Your task to perform on an android device: move an email to a new category in the gmail app Image 0: 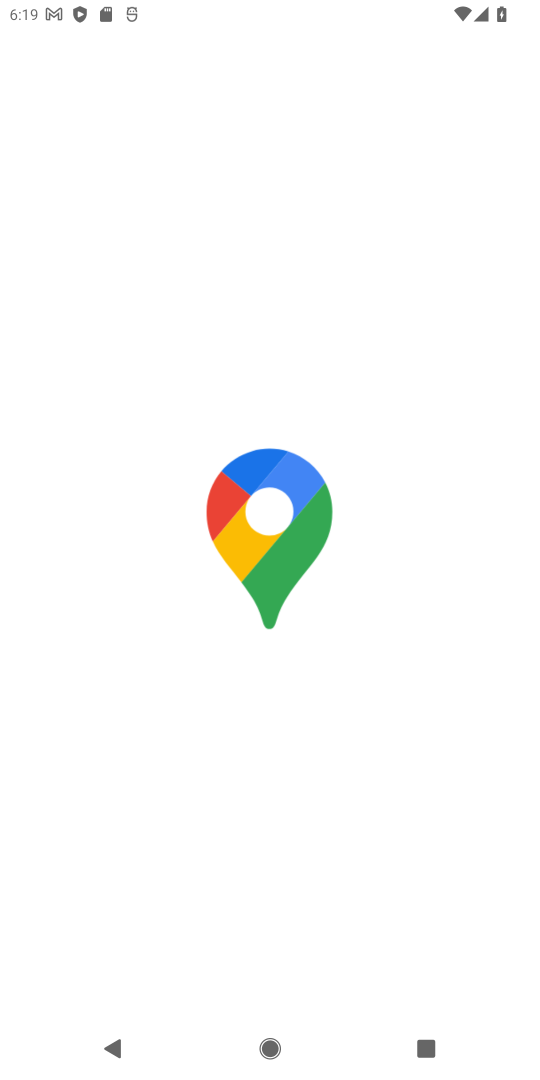
Step 0: press back button
Your task to perform on an android device: move an email to a new category in the gmail app Image 1: 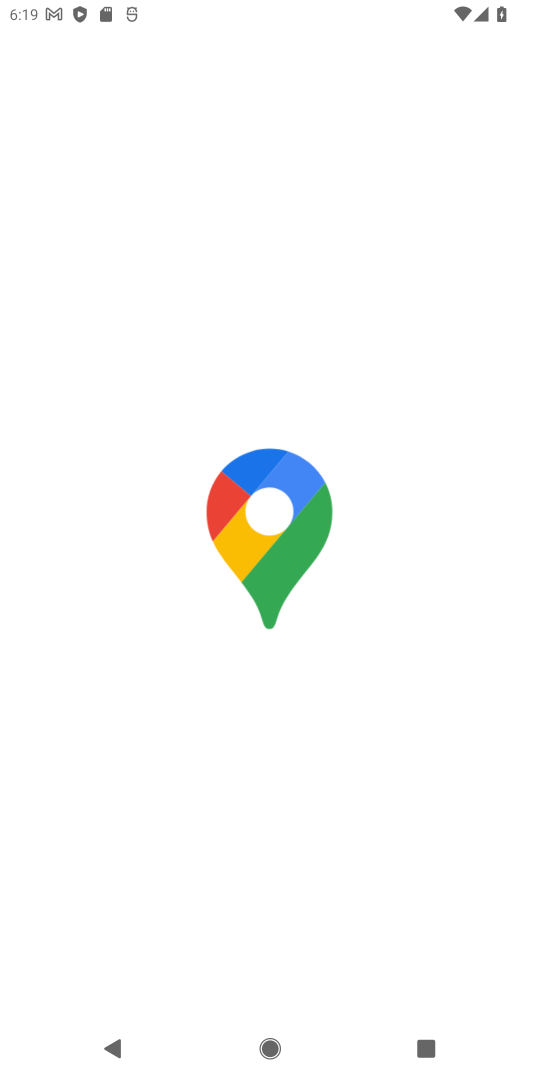
Step 1: press back button
Your task to perform on an android device: move an email to a new category in the gmail app Image 2: 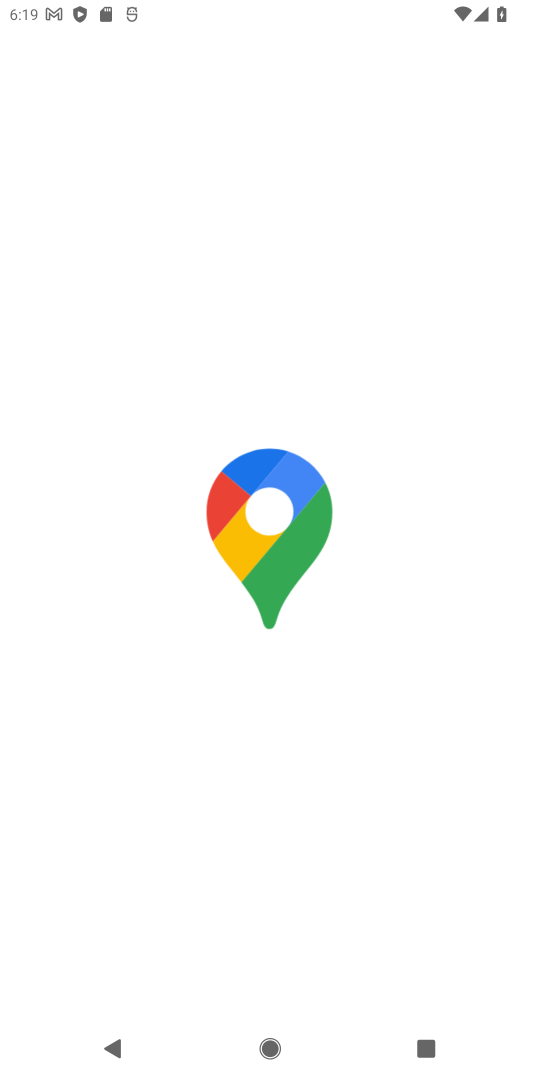
Step 2: press home button
Your task to perform on an android device: move an email to a new category in the gmail app Image 3: 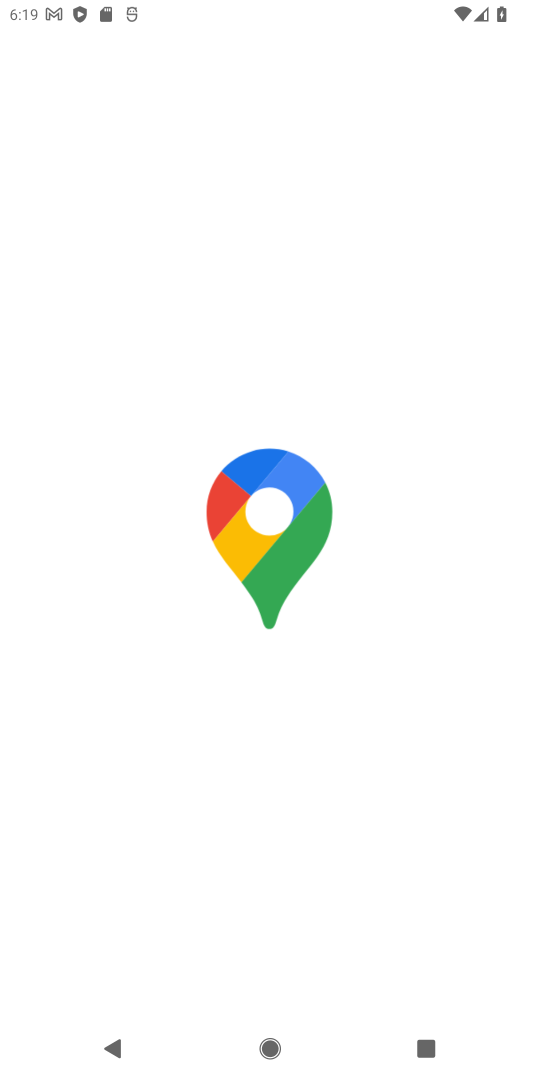
Step 3: press home button
Your task to perform on an android device: move an email to a new category in the gmail app Image 4: 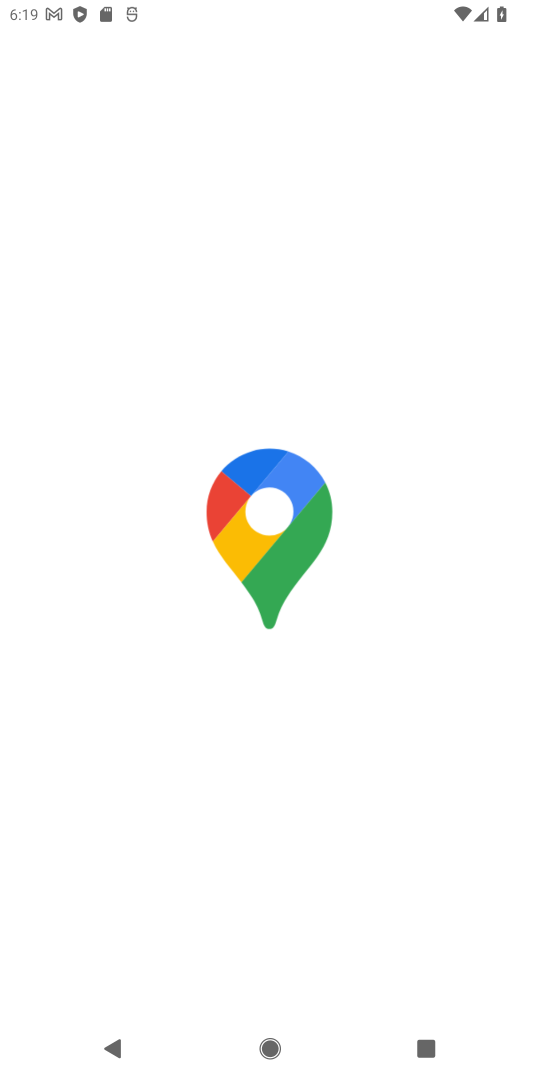
Step 4: press home button
Your task to perform on an android device: move an email to a new category in the gmail app Image 5: 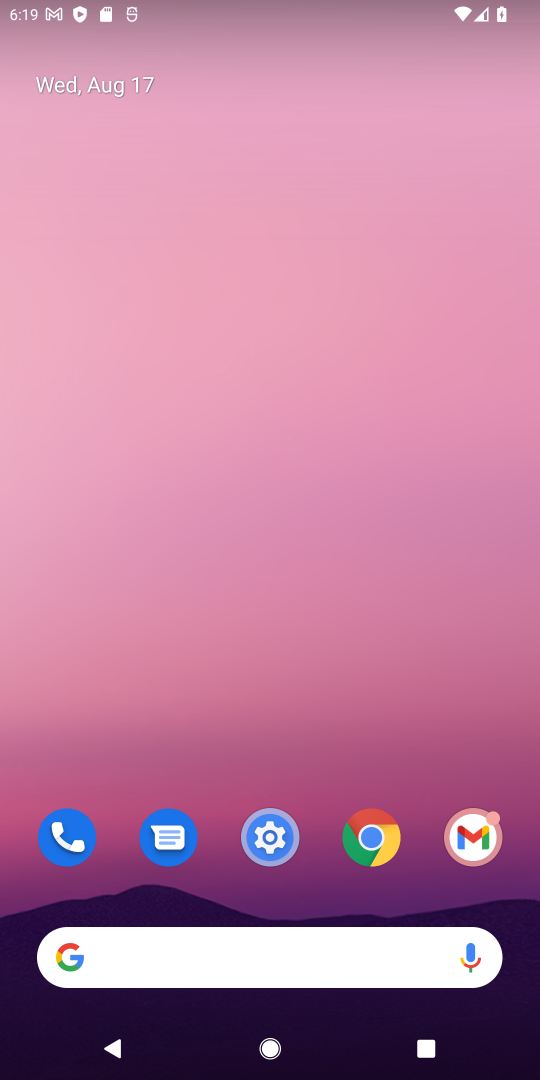
Step 5: click (467, 835)
Your task to perform on an android device: move an email to a new category in the gmail app Image 6: 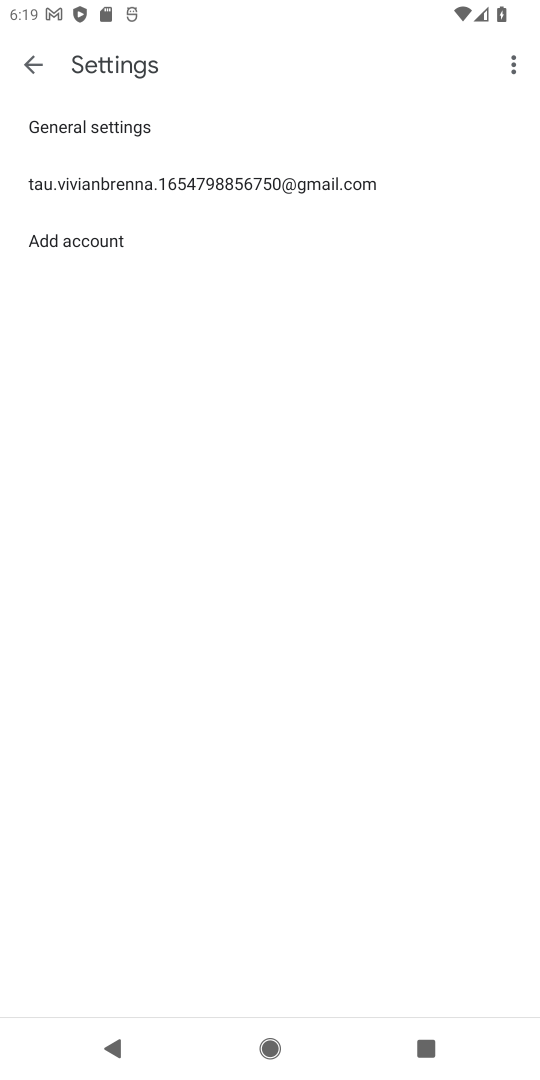
Step 6: press back button
Your task to perform on an android device: move an email to a new category in the gmail app Image 7: 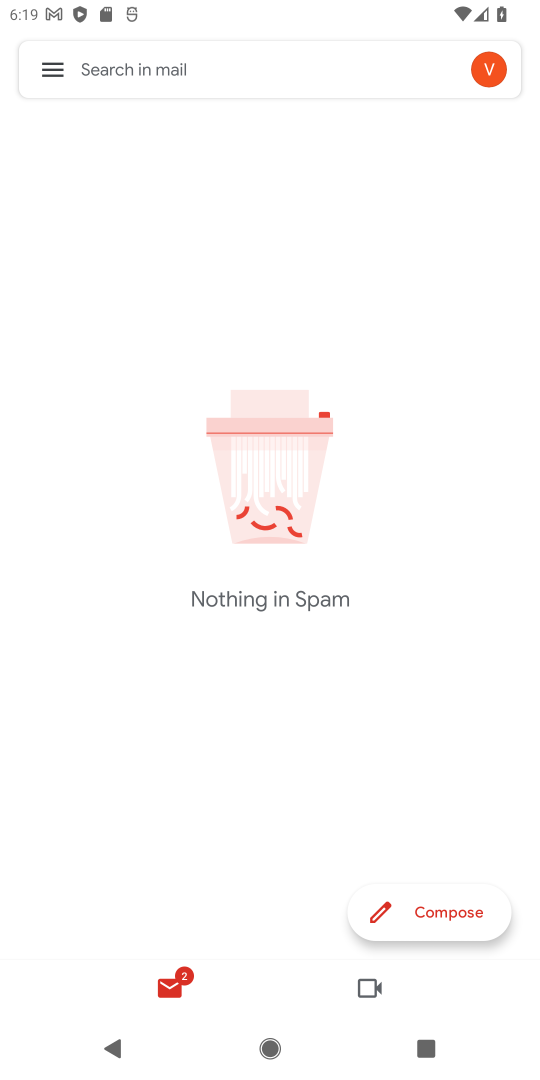
Step 7: click (46, 58)
Your task to perform on an android device: move an email to a new category in the gmail app Image 8: 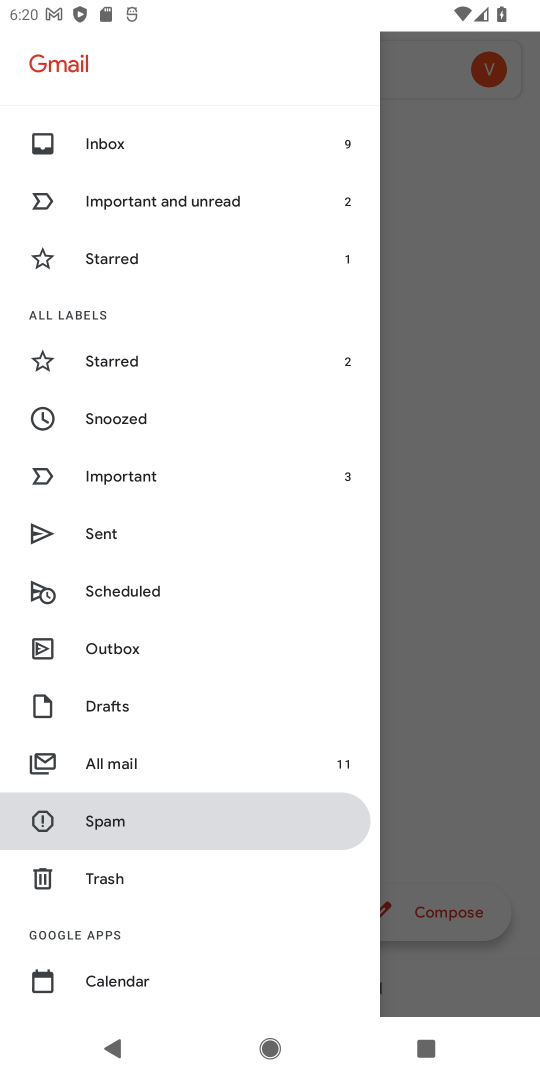
Step 8: click (155, 760)
Your task to perform on an android device: move an email to a new category in the gmail app Image 9: 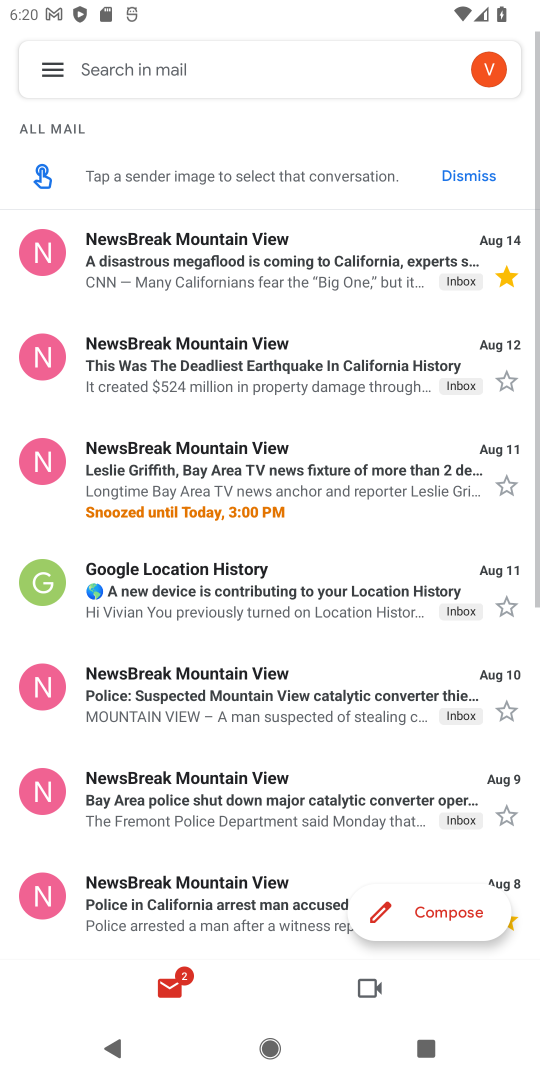
Step 9: click (180, 704)
Your task to perform on an android device: move an email to a new category in the gmail app Image 10: 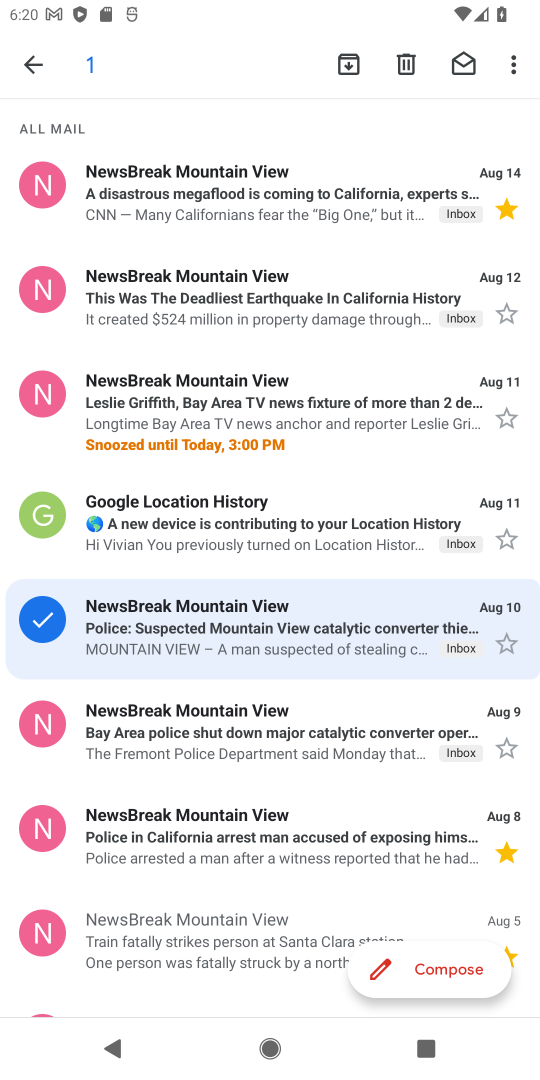
Step 10: click (511, 63)
Your task to perform on an android device: move an email to a new category in the gmail app Image 11: 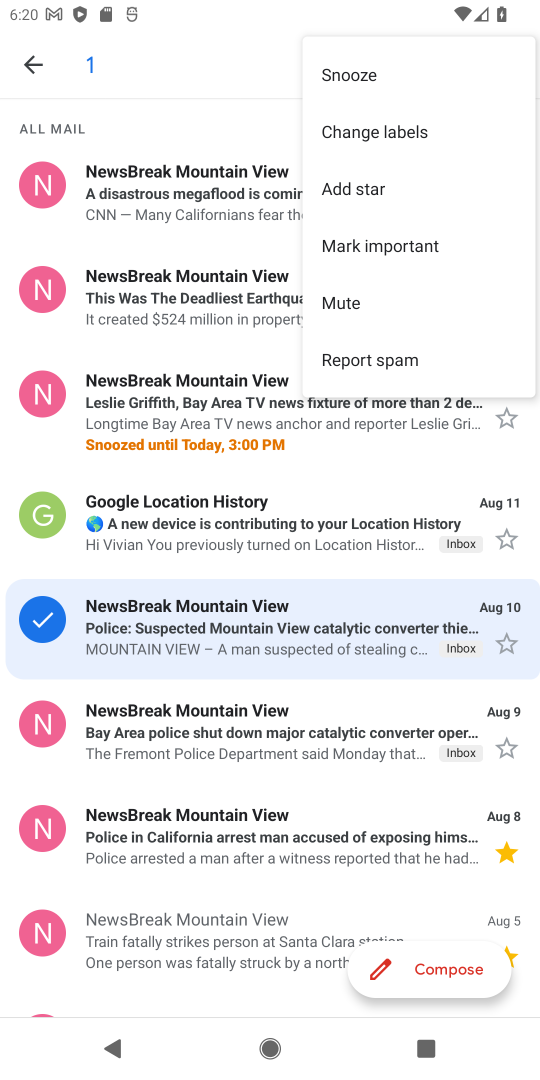
Step 11: click (407, 119)
Your task to perform on an android device: move an email to a new category in the gmail app Image 12: 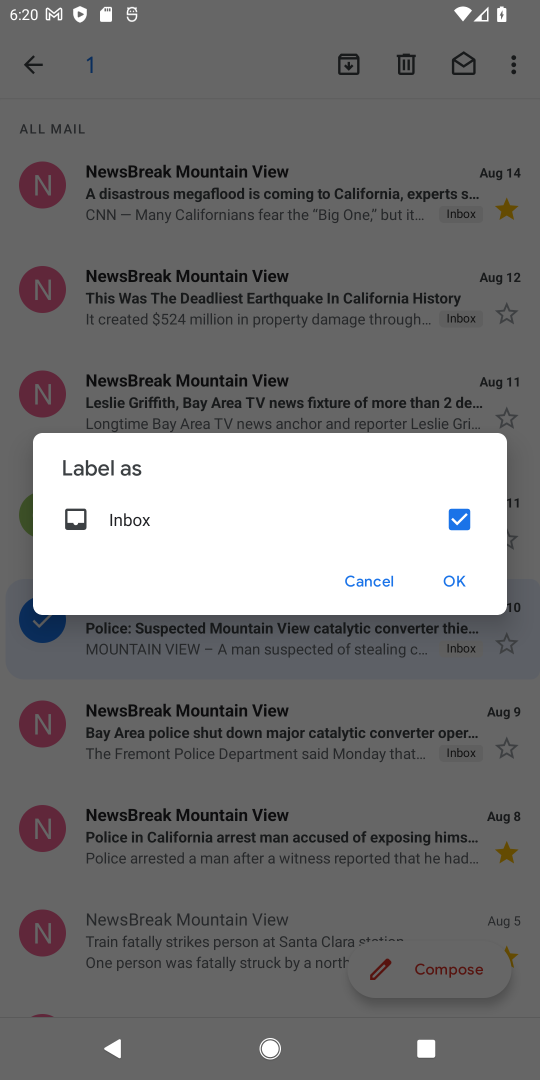
Step 12: click (339, 574)
Your task to perform on an android device: move an email to a new category in the gmail app Image 13: 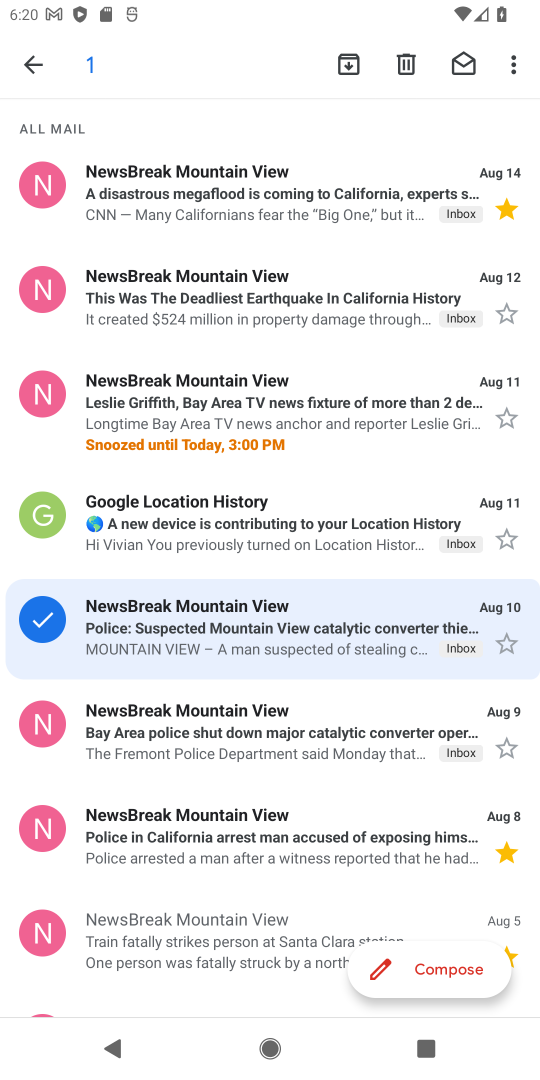
Step 13: click (514, 62)
Your task to perform on an android device: move an email to a new category in the gmail app Image 14: 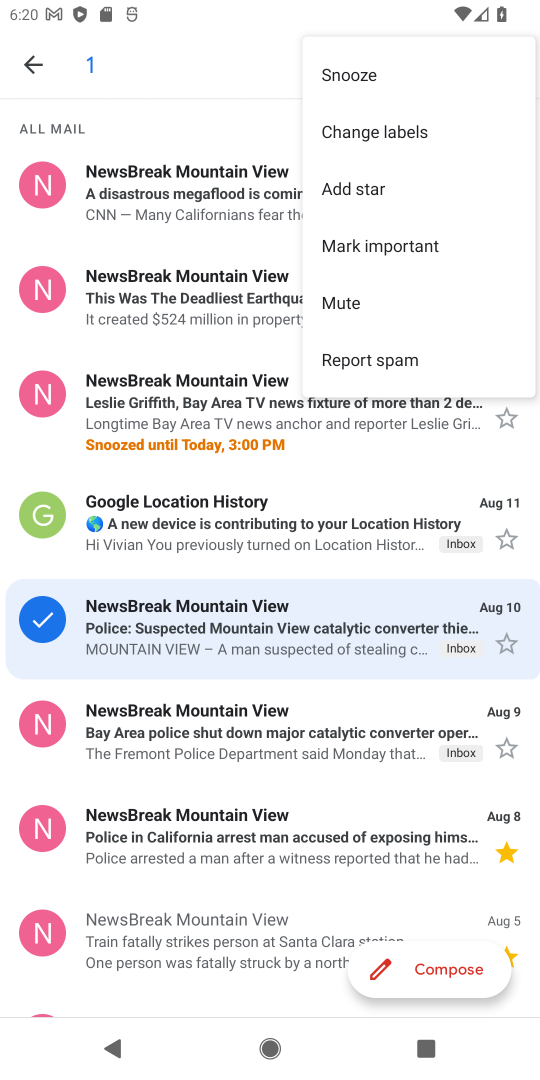
Step 14: click (214, 78)
Your task to perform on an android device: move an email to a new category in the gmail app Image 15: 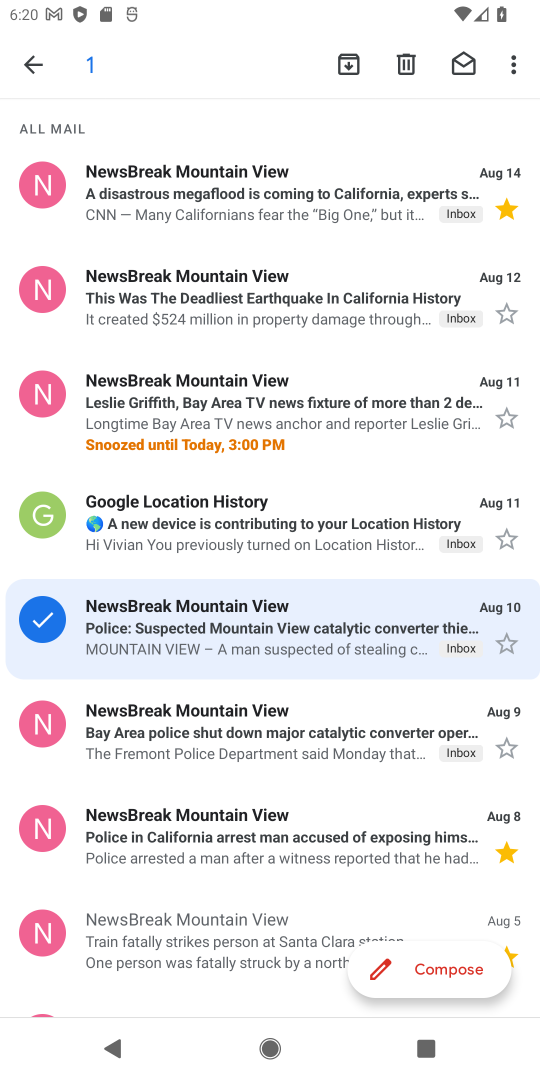
Step 15: click (338, 410)
Your task to perform on an android device: move an email to a new category in the gmail app Image 16: 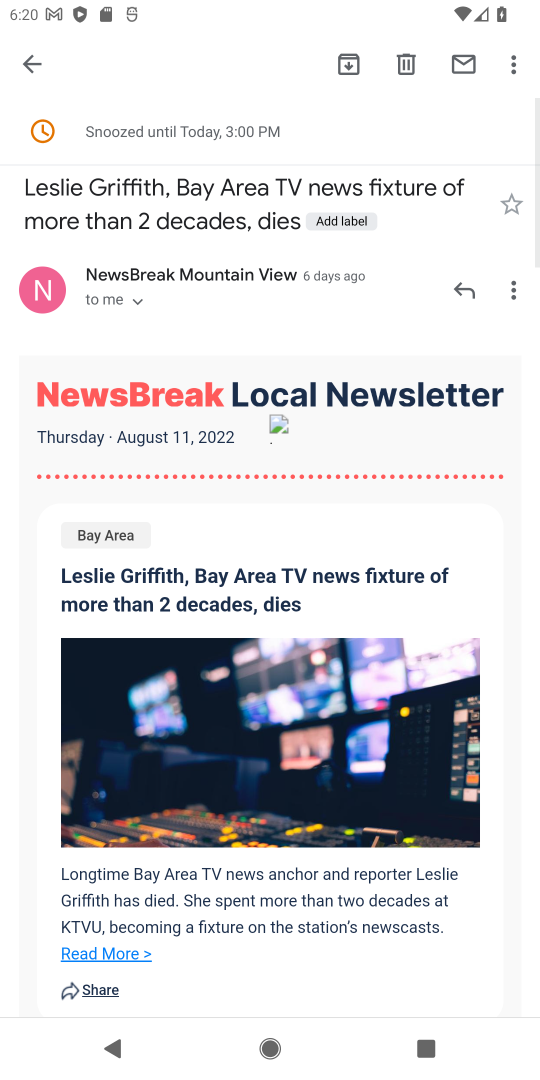
Step 16: click (512, 62)
Your task to perform on an android device: move an email to a new category in the gmail app Image 17: 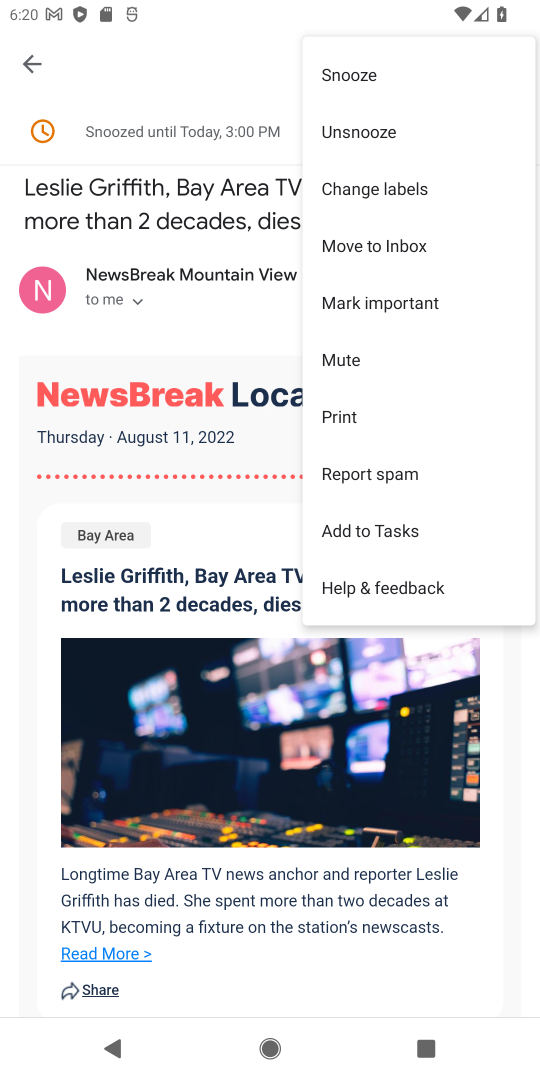
Step 17: click (393, 240)
Your task to perform on an android device: move an email to a new category in the gmail app Image 18: 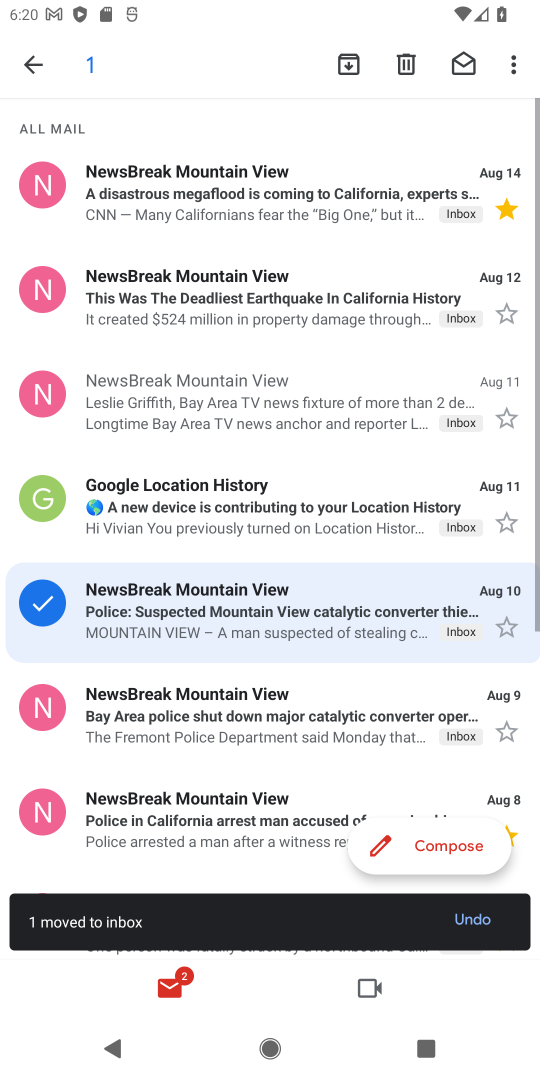
Step 18: task complete